Your task to perform on an android device: Open Android settings Image 0: 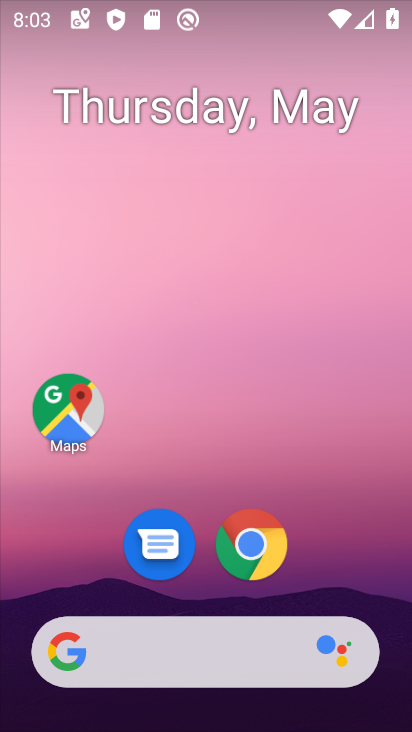
Step 0: press home button
Your task to perform on an android device: Open Android settings Image 1: 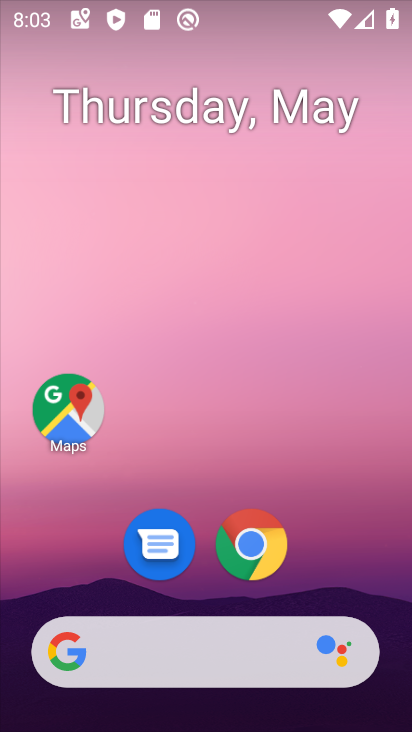
Step 1: drag from (331, 539) to (331, 53)
Your task to perform on an android device: Open Android settings Image 2: 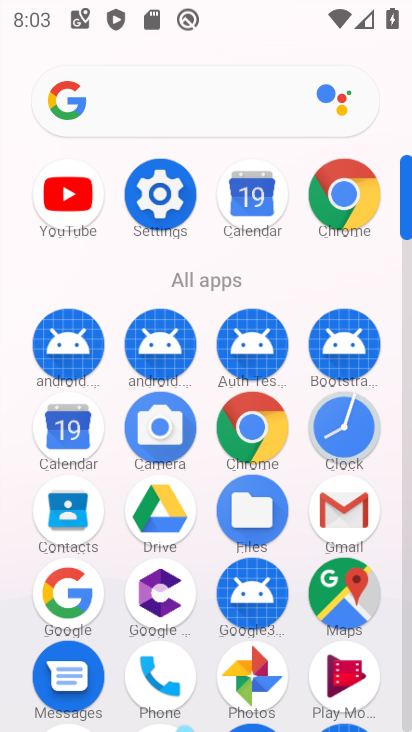
Step 2: click (177, 215)
Your task to perform on an android device: Open Android settings Image 3: 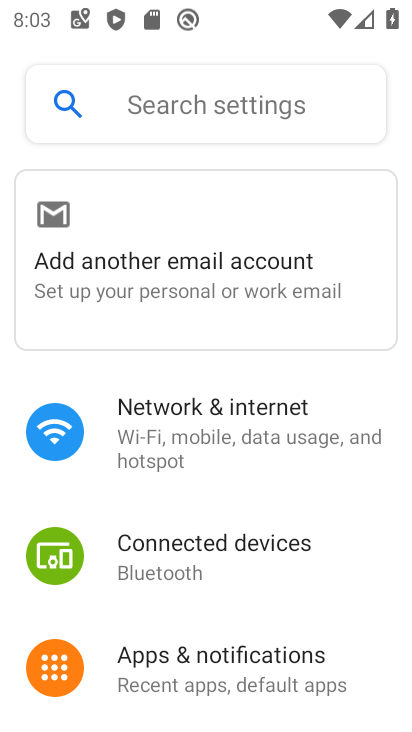
Step 3: drag from (246, 640) to (248, 86)
Your task to perform on an android device: Open Android settings Image 4: 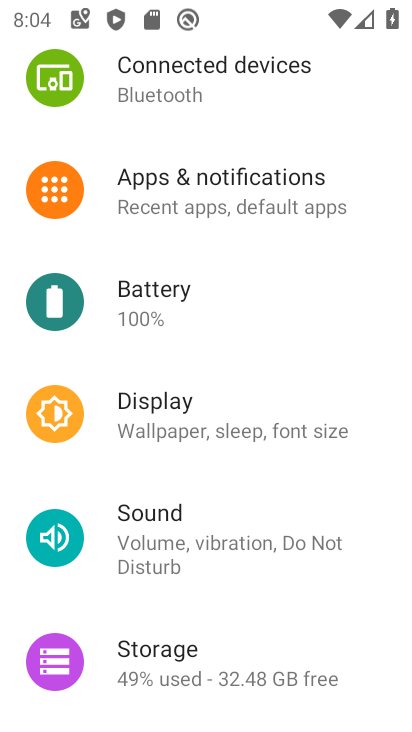
Step 4: drag from (277, 525) to (258, 188)
Your task to perform on an android device: Open Android settings Image 5: 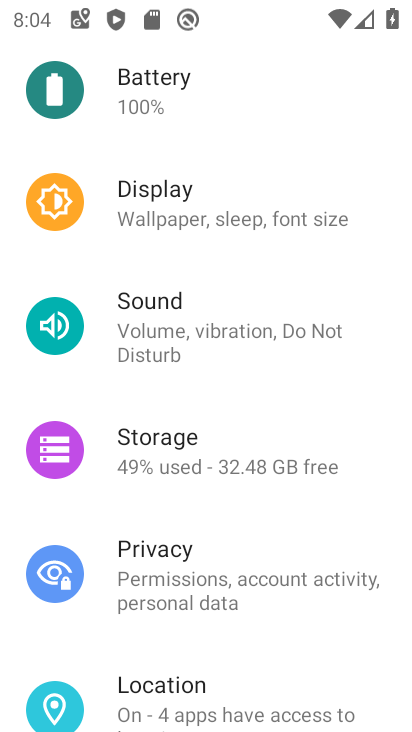
Step 5: drag from (288, 621) to (268, 7)
Your task to perform on an android device: Open Android settings Image 6: 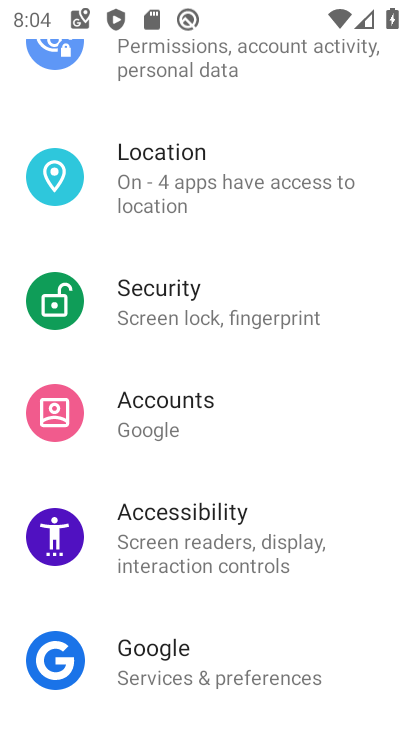
Step 6: drag from (265, 616) to (210, 118)
Your task to perform on an android device: Open Android settings Image 7: 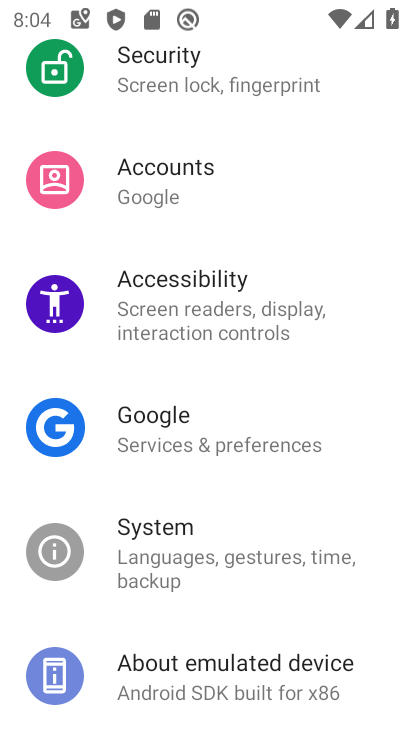
Step 7: click (255, 666)
Your task to perform on an android device: Open Android settings Image 8: 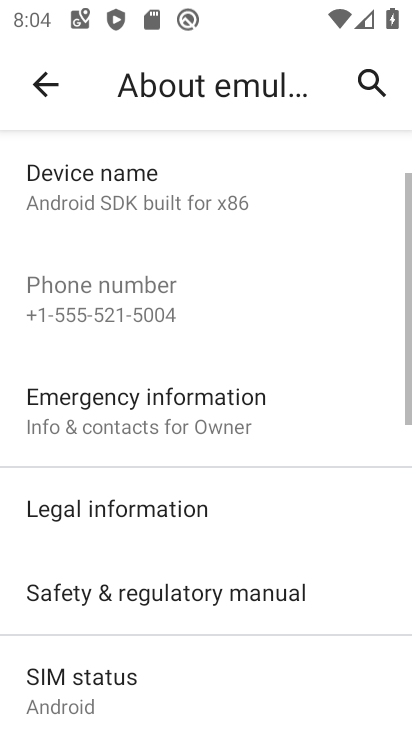
Step 8: drag from (296, 479) to (260, 141)
Your task to perform on an android device: Open Android settings Image 9: 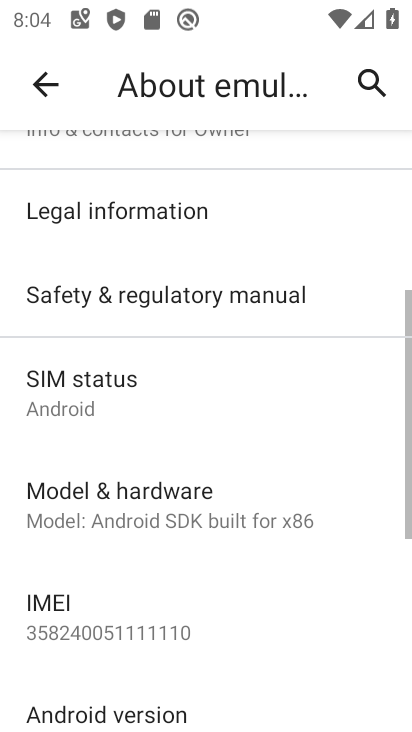
Step 9: drag from (248, 572) to (201, 247)
Your task to perform on an android device: Open Android settings Image 10: 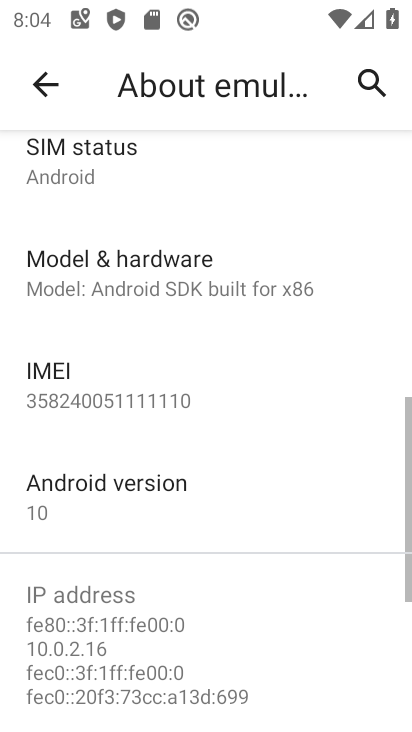
Step 10: click (176, 516)
Your task to perform on an android device: Open Android settings Image 11: 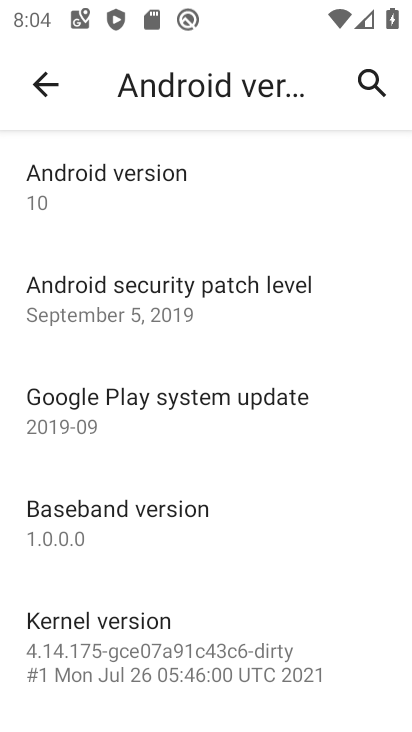
Step 11: task complete